Your task to perform on an android device: turn on the 24-hour format for clock Image 0: 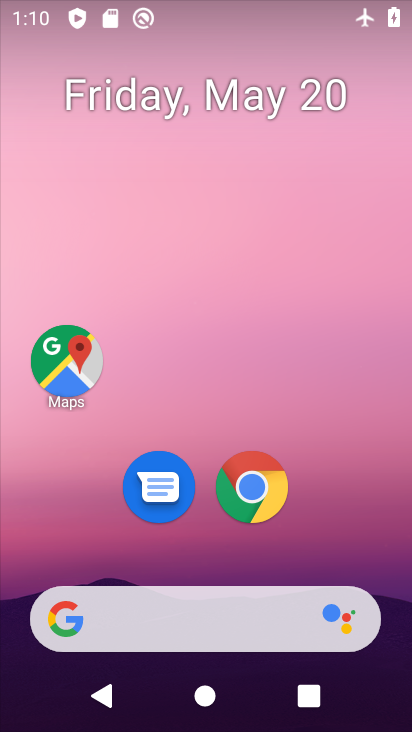
Step 0: drag from (331, 489) to (298, 12)
Your task to perform on an android device: turn on the 24-hour format for clock Image 1: 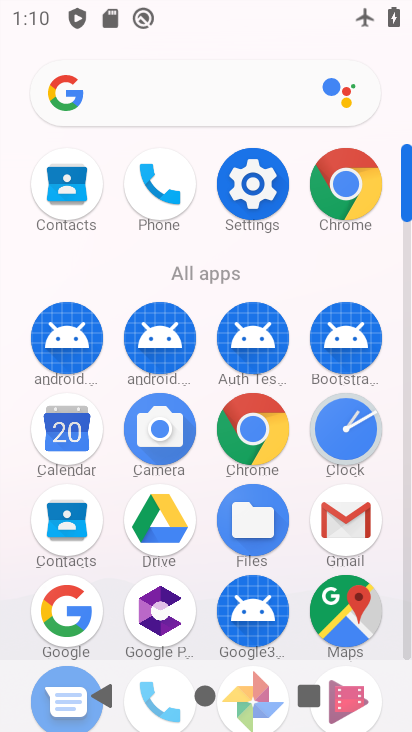
Step 1: drag from (12, 569) to (25, 222)
Your task to perform on an android device: turn on the 24-hour format for clock Image 2: 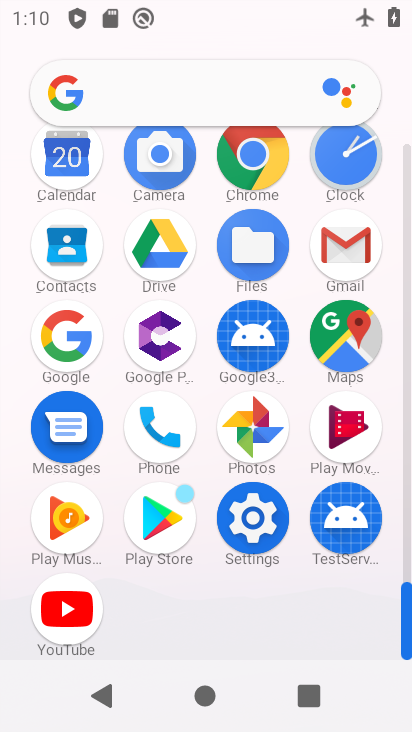
Step 2: drag from (19, 612) to (24, 313)
Your task to perform on an android device: turn on the 24-hour format for clock Image 3: 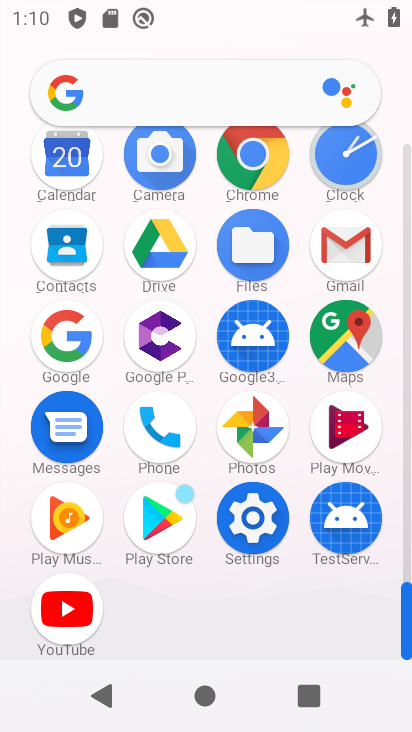
Step 3: click (351, 152)
Your task to perform on an android device: turn on the 24-hour format for clock Image 4: 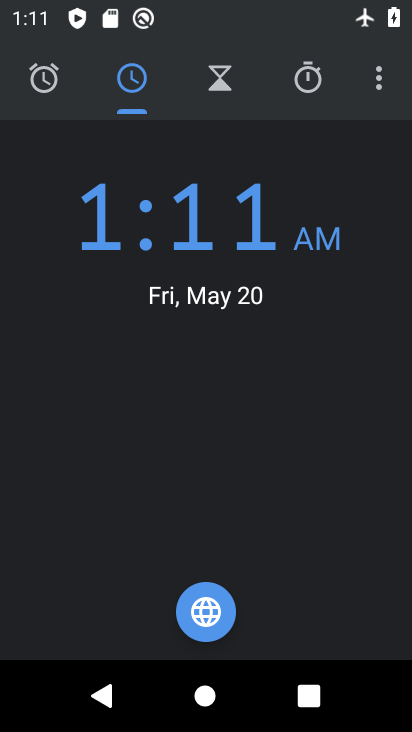
Step 4: drag from (382, 76) to (320, 148)
Your task to perform on an android device: turn on the 24-hour format for clock Image 5: 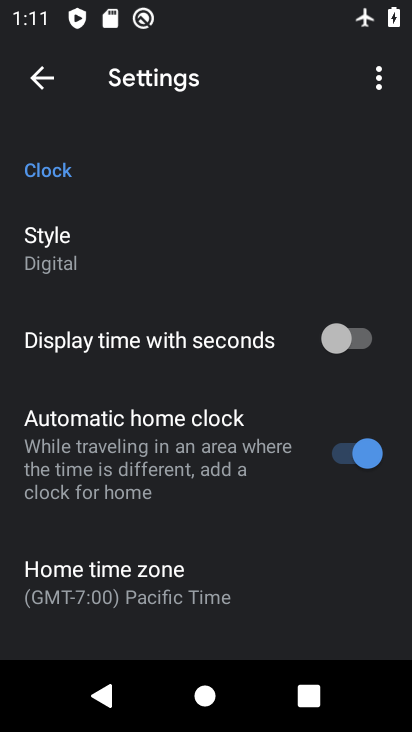
Step 5: drag from (219, 515) to (222, 168)
Your task to perform on an android device: turn on the 24-hour format for clock Image 6: 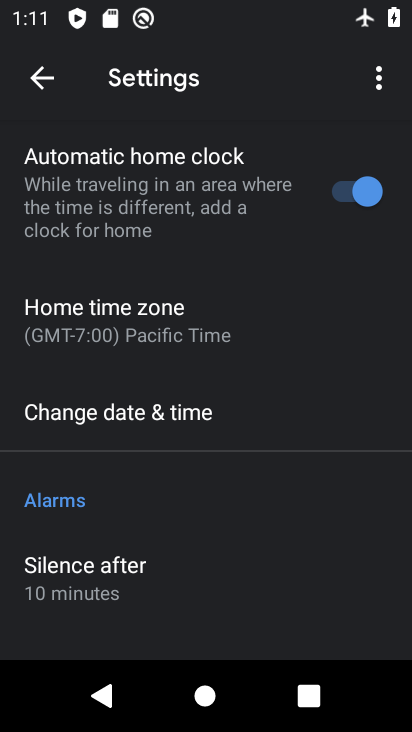
Step 6: drag from (193, 534) to (203, 135)
Your task to perform on an android device: turn on the 24-hour format for clock Image 7: 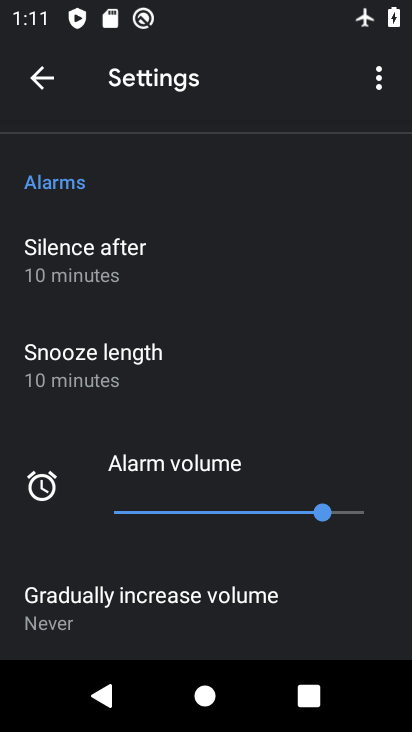
Step 7: drag from (175, 581) to (190, 124)
Your task to perform on an android device: turn on the 24-hour format for clock Image 8: 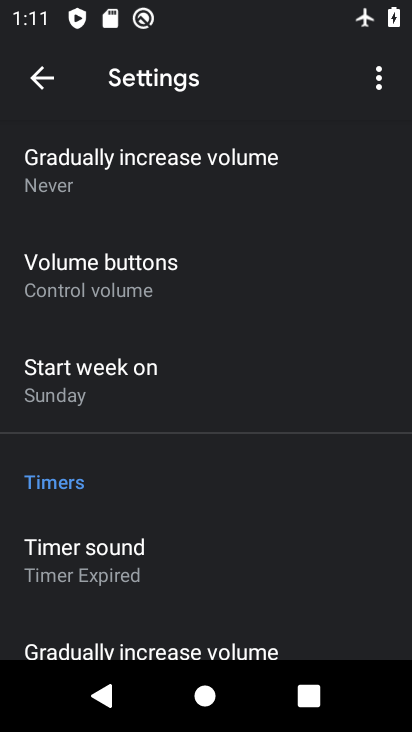
Step 8: drag from (222, 520) to (238, 125)
Your task to perform on an android device: turn on the 24-hour format for clock Image 9: 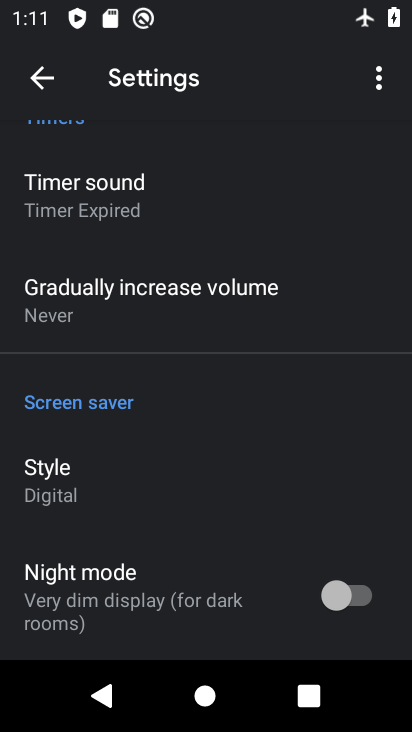
Step 9: drag from (220, 428) to (236, 114)
Your task to perform on an android device: turn on the 24-hour format for clock Image 10: 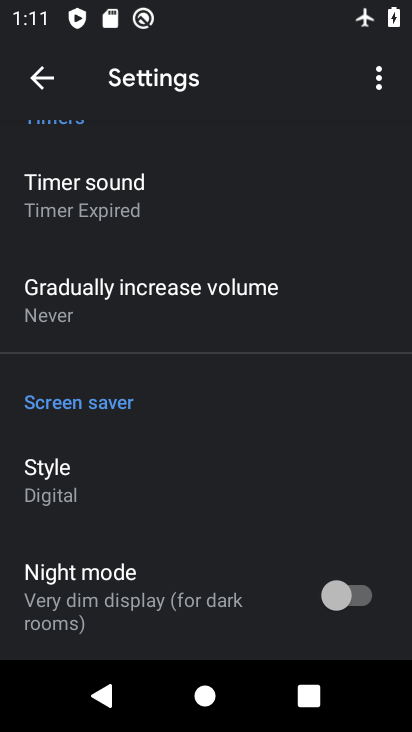
Step 10: drag from (186, 572) to (212, 173)
Your task to perform on an android device: turn on the 24-hour format for clock Image 11: 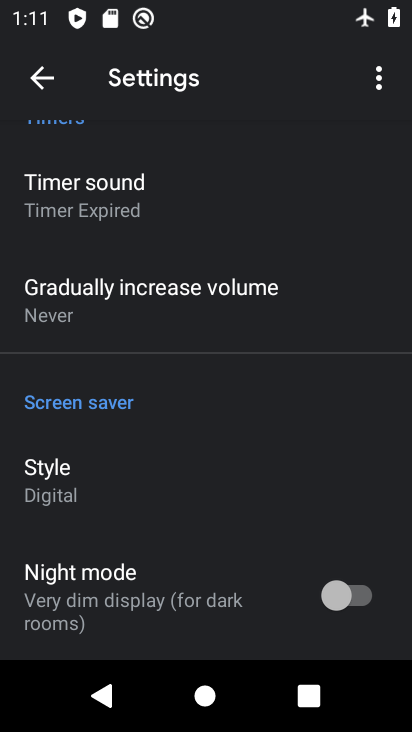
Step 11: drag from (219, 246) to (212, 624)
Your task to perform on an android device: turn on the 24-hour format for clock Image 12: 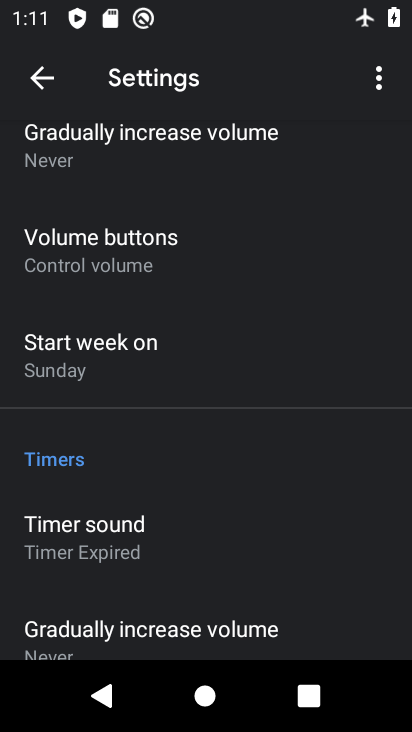
Step 12: drag from (236, 213) to (237, 606)
Your task to perform on an android device: turn on the 24-hour format for clock Image 13: 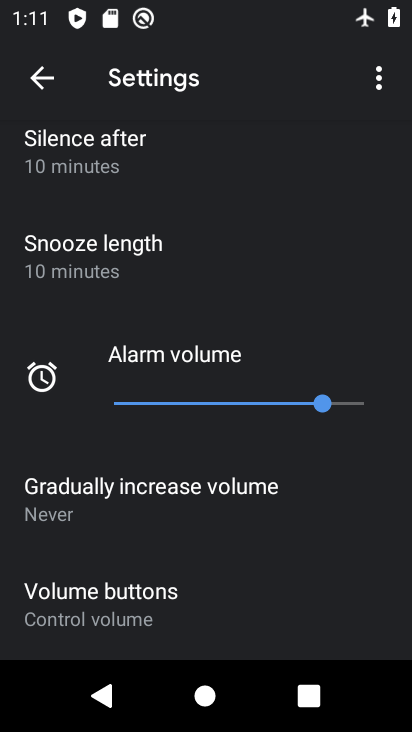
Step 13: drag from (232, 174) to (210, 551)
Your task to perform on an android device: turn on the 24-hour format for clock Image 14: 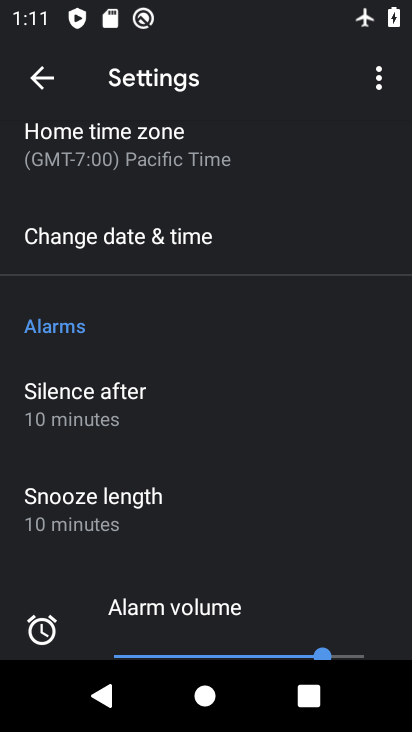
Step 14: drag from (230, 196) to (220, 397)
Your task to perform on an android device: turn on the 24-hour format for clock Image 15: 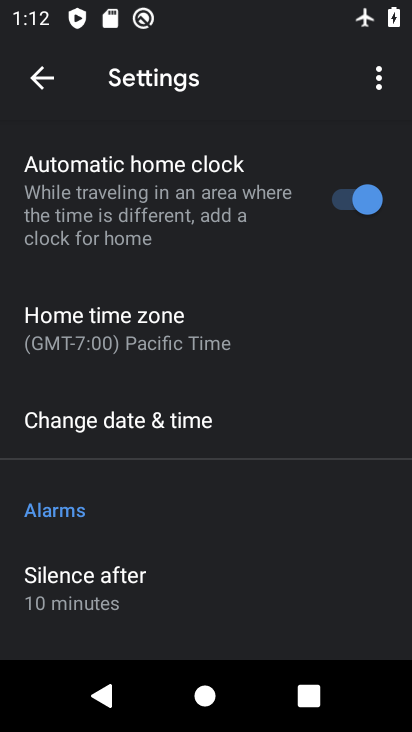
Step 15: click (184, 417)
Your task to perform on an android device: turn on the 24-hour format for clock Image 16: 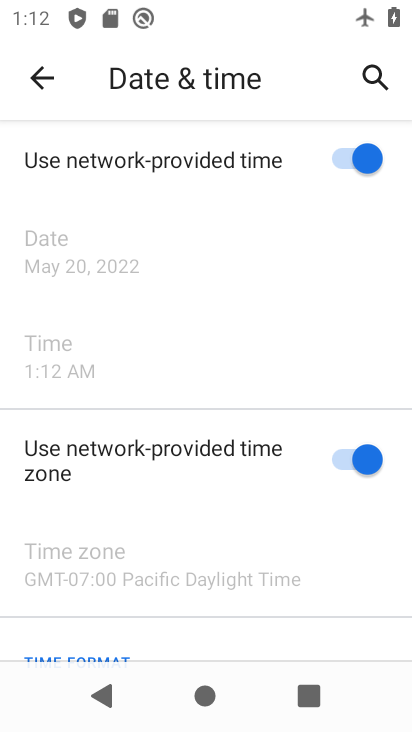
Step 16: drag from (219, 524) to (249, 110)
Your task to perform on an android device: turn on the 24-hour format for clock Image 17: 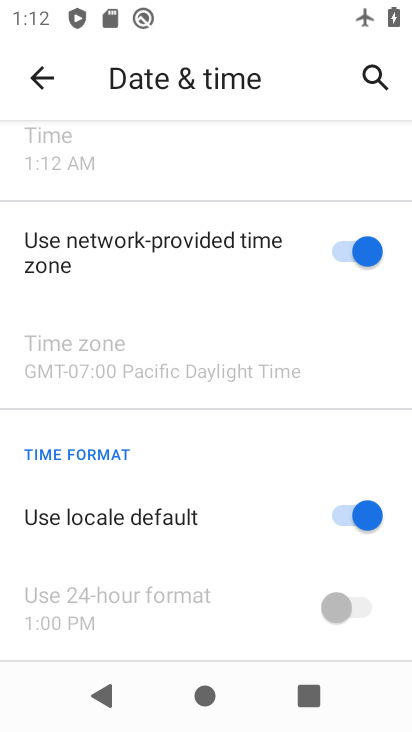
Step 17: drag from (212, 504) to (225, 149)
Your task to perform on an android device: turn on the 24-hour format for clock Image 18: 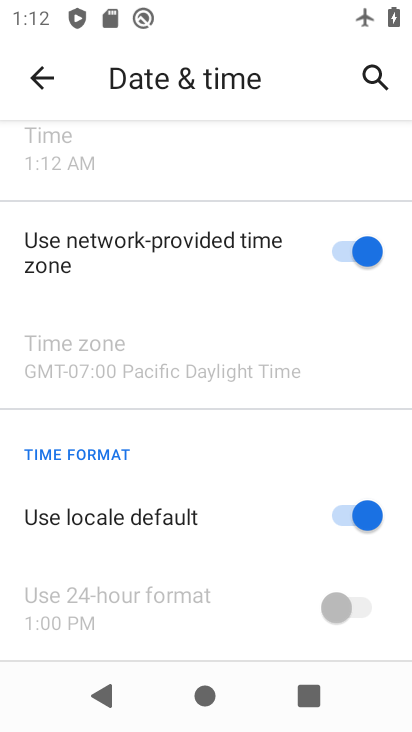
Step 18: click (340, 523)
Your task to perform on an android device: turn on the 24-hour format for clock Image 19: 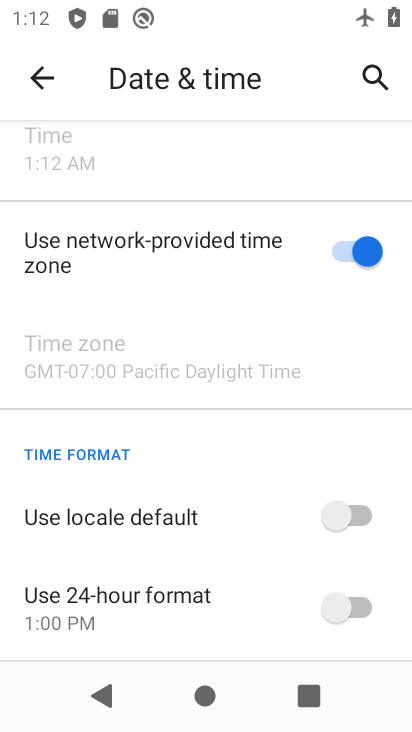
Step 19: click (340, 615)
Your task to perform on an android device: turn on the 24-hour format for clock Image 20: 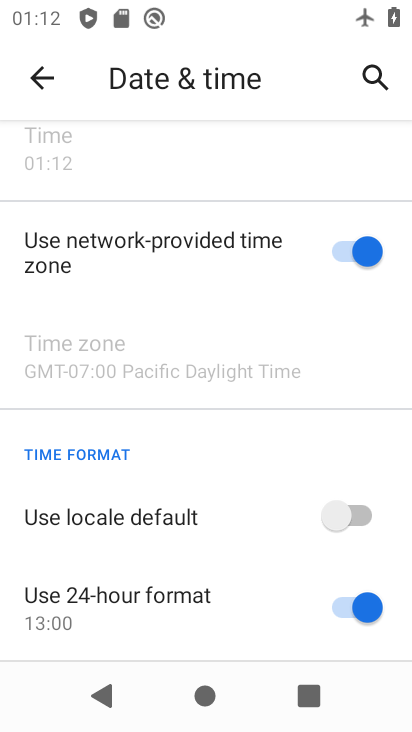
Step 20: task complete